Your task to perform on an android device: install app "Grab" Image 0: 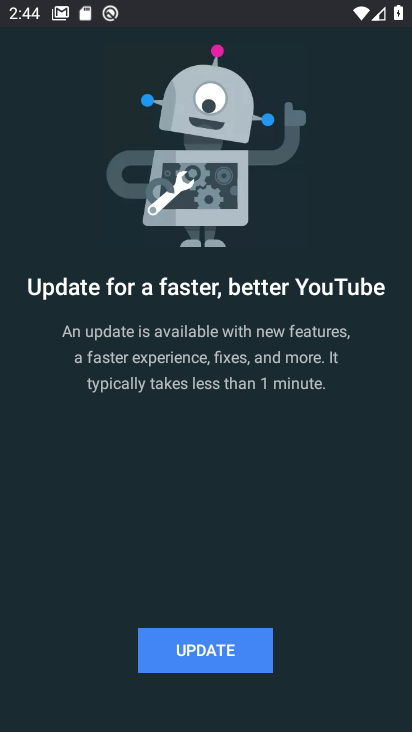
Step 0: press home button
Your task to perform on an android device: install app "Grab" Image 1: 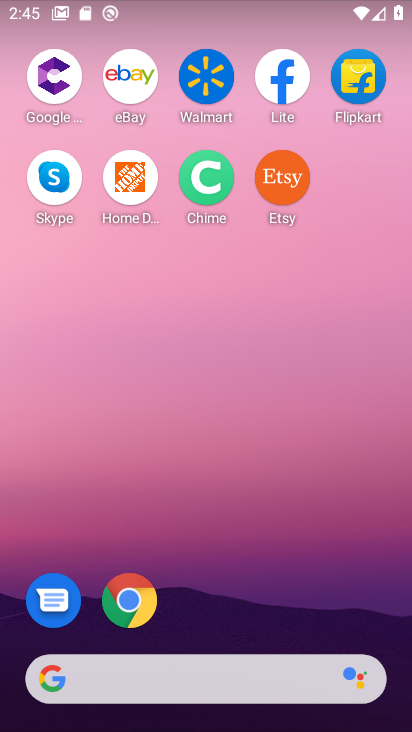
Step 1: drag from (221, 621) to (257, 75)
Your task to perform on an android device: install app "Grab" Image 2: 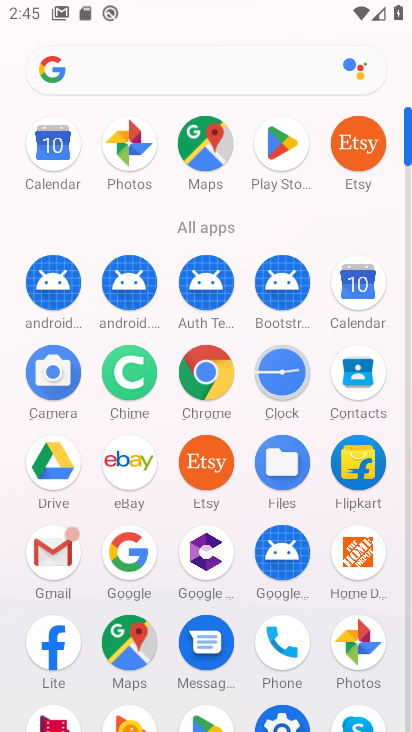
Step 2: click (288, 141)
Your task to perform on an android device: install app "Grab" Image 3: 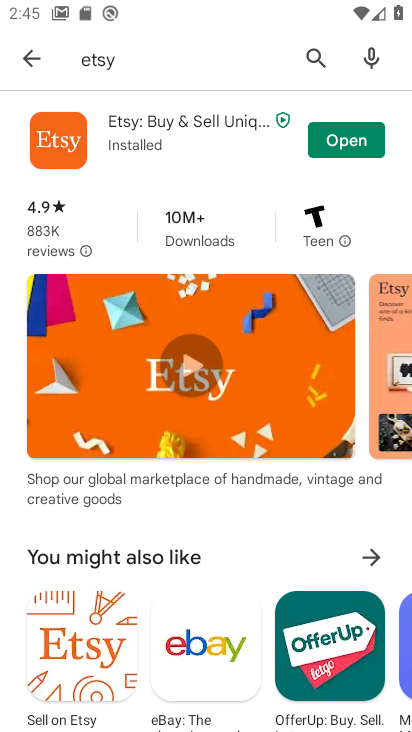
Step 3: click (311, 56)
Your task to perform on an android device: install app "Grab" Image 4: 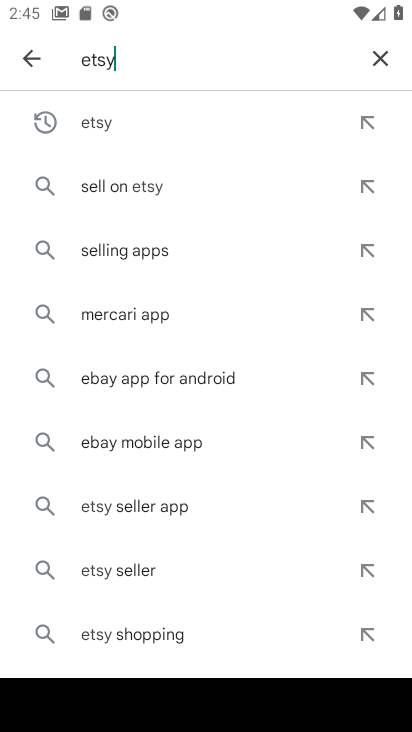
Step 4: click (390, 52)
Your task to perform on an android device: install app "Grab" Image 5: 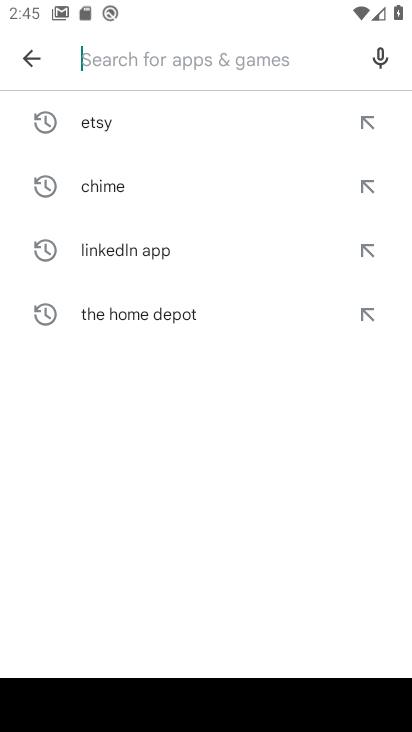
Step 5: click (184, 57)
Your task to perform on an android device: install app "Grab" Image 6: 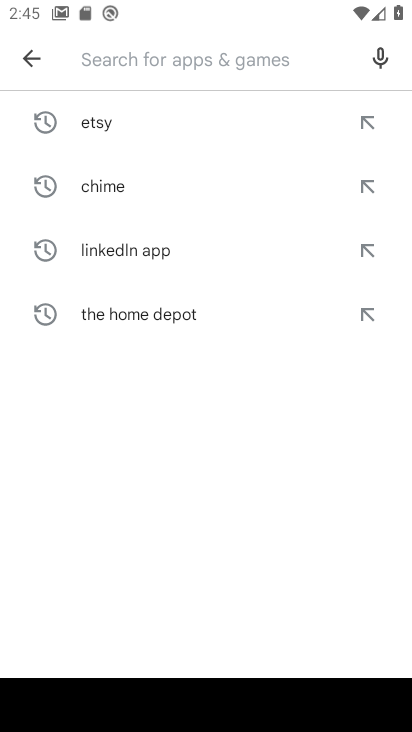
Step 6: type "grab"
Your task to perform on an android device: install app "Grab" Image 7: 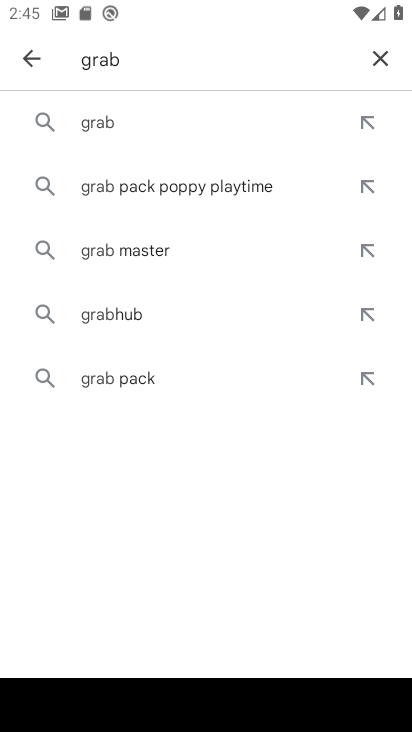
Step 7: click (166, 117)
Your task to perform on an android device: install app "Grab" Image 8: 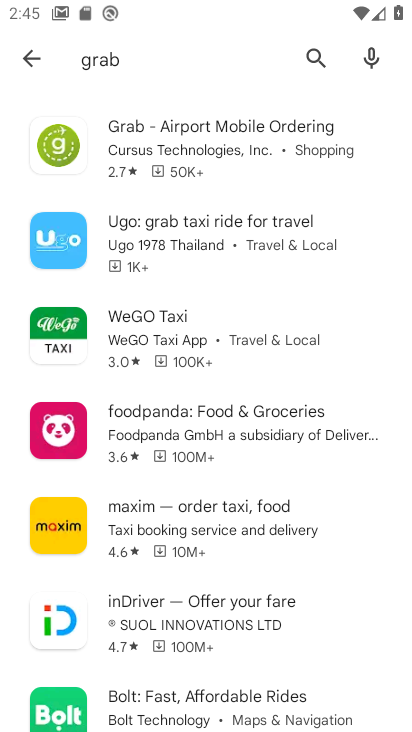
Step 8: click (241, 141)
Your task to perform on an android device: install app "Grab" Image 9: 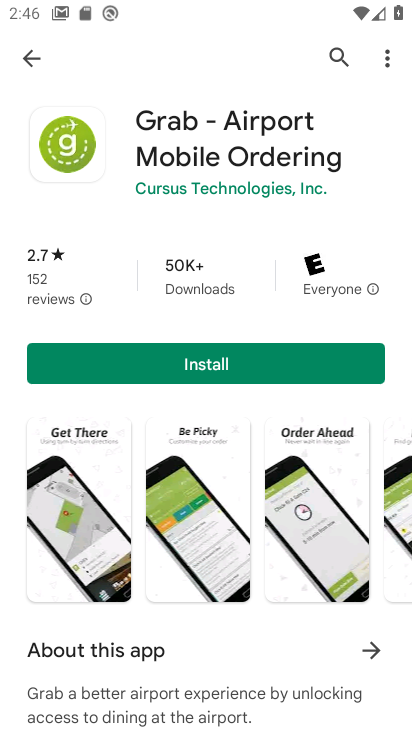
Step 9: click (200, 360)
Your task to perform on an android device: install app "Grab" Image 10: 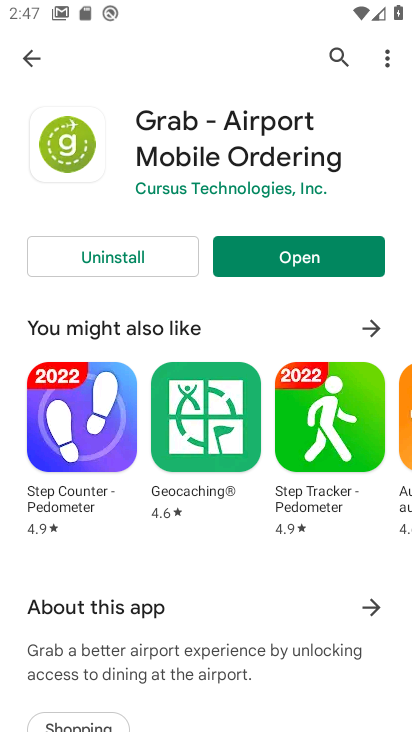
Step 10: click (276, 263)
Your task to perform on an android device: install app "Grab" Image 11: 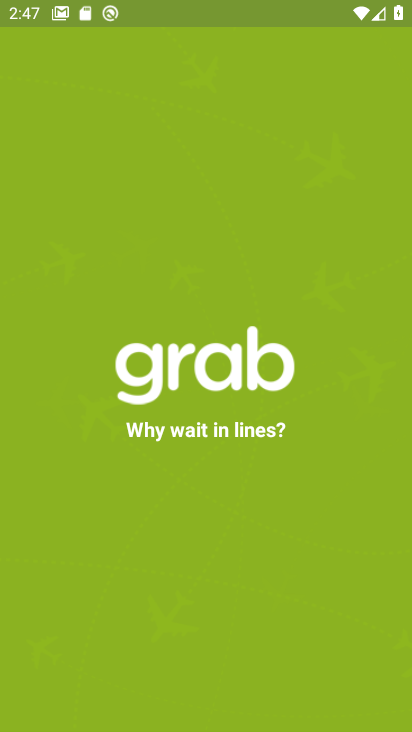
Step 11: task complete